Your task to perform on an android device: Is it going to rain today? Image 0: 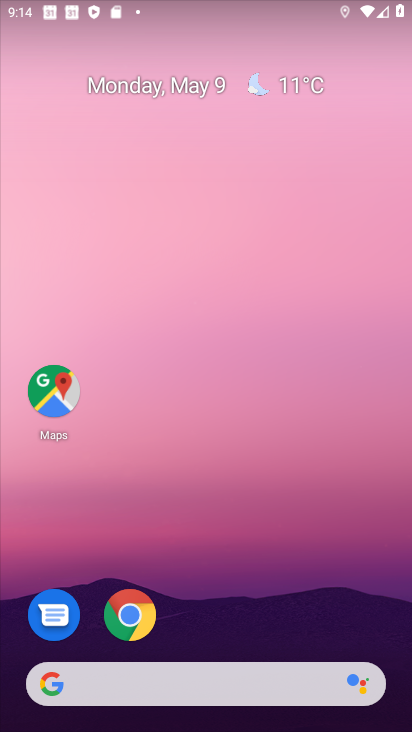
Step 0: drag from (243, 572) to (207, 25)
Your task to perform on an android device: Is it going to rain today? Image 1: 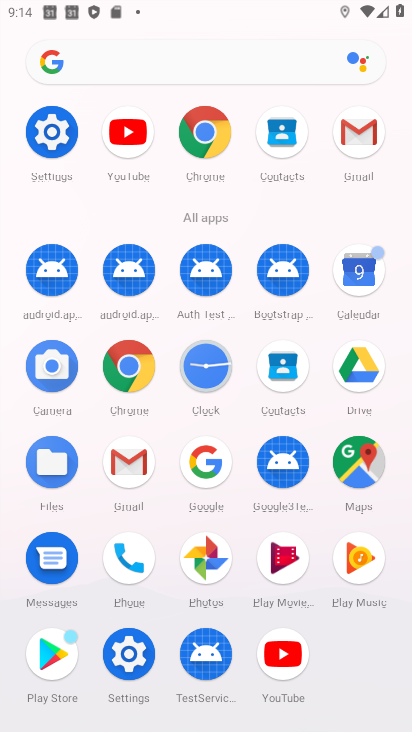
Step 1: click (204, 131)
Your task to perform on an android device: Is it going to rain today? Image 2: 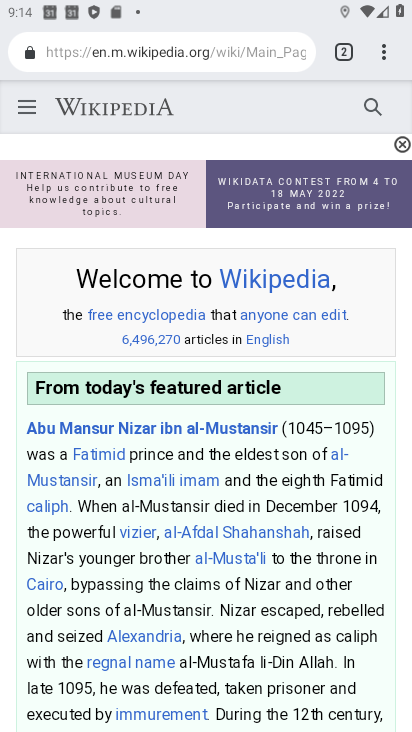
Step 2: click (184, 48)
Your task to perform on an android device: Is it going to rain today? Image 3: 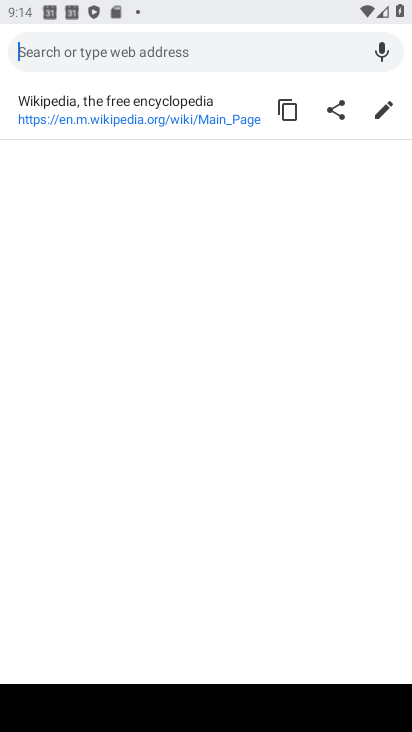
Step 3: type "Is it going to rain today?"
Your task to perform on an android device: Is it going to rain today? Image 4: 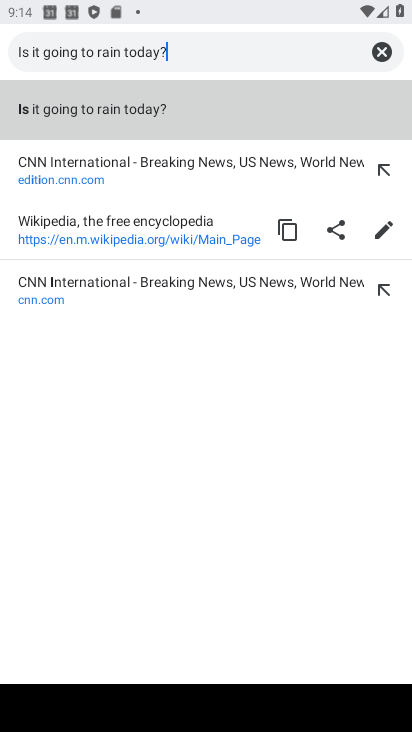
Step 4: type ""
Your task to perform on an android device: Is it going to rain today? Image 5: 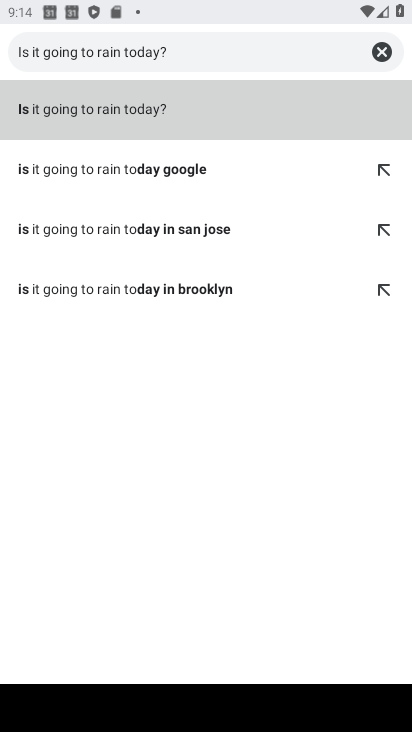
Step 5: click (185, 124)
Your task to perform on an android device: Is it going to rain today? Image 6: 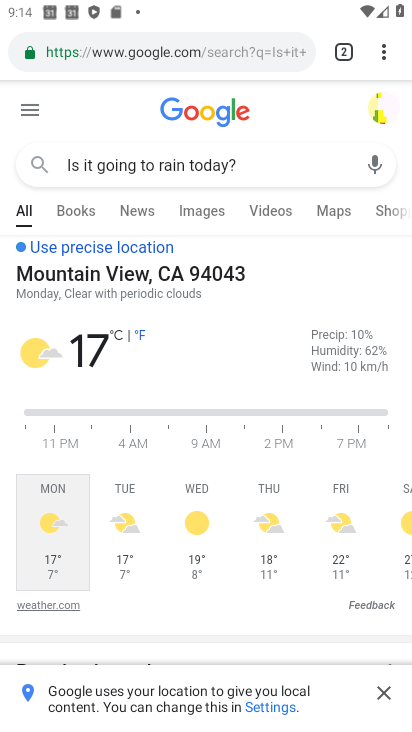
Step 6: task complete